Your task to perform on an android device: Open location settings Image 0: 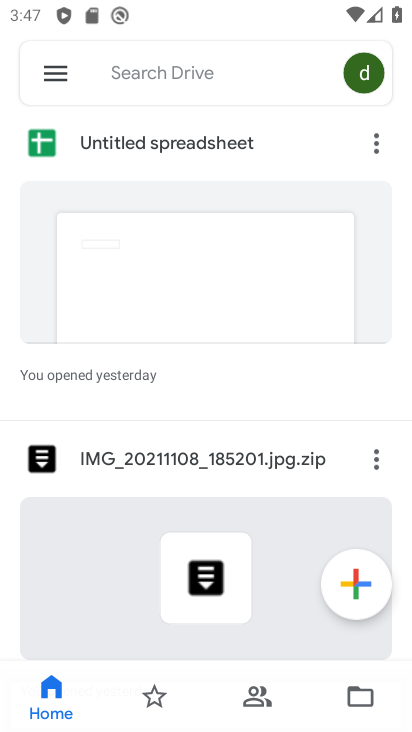
Step 0: press home button
Your task to perform on an android device: Open location settings Image 1: 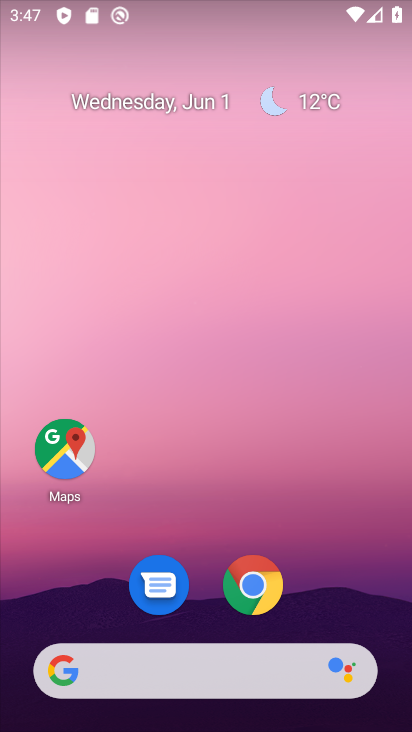
Step 1: drag from (307, 420) to (313, 18)
Your task to perform on an android device: Open location settings Image 2: 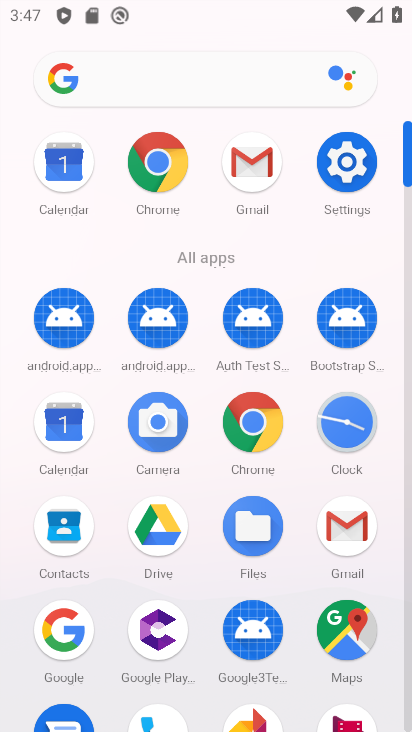
Step 2: click (353, 169)
Your task to perform on an android device: Open location settings Image 3: 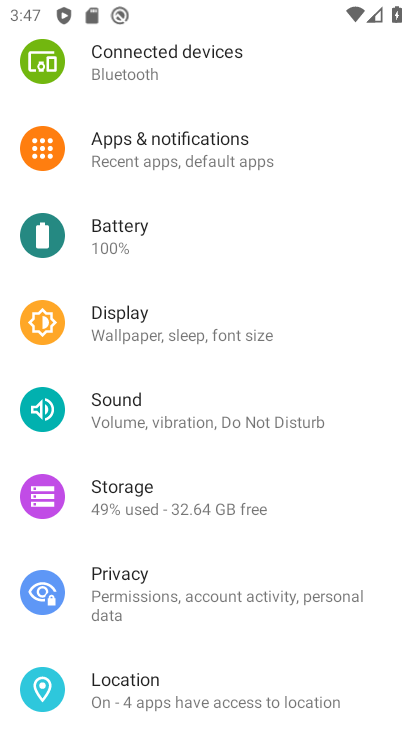
Step 3: click (191, 680)
Your task to perform on an android device: Open location settings Image 4: 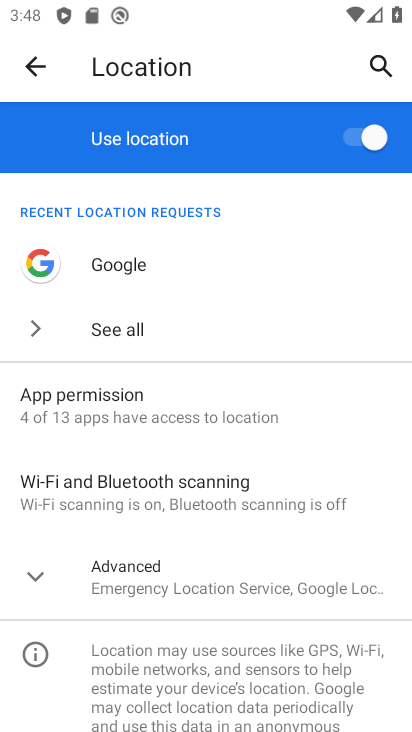
Step 4: task complete